Your task to perform on an android device: set the timer Image 0: 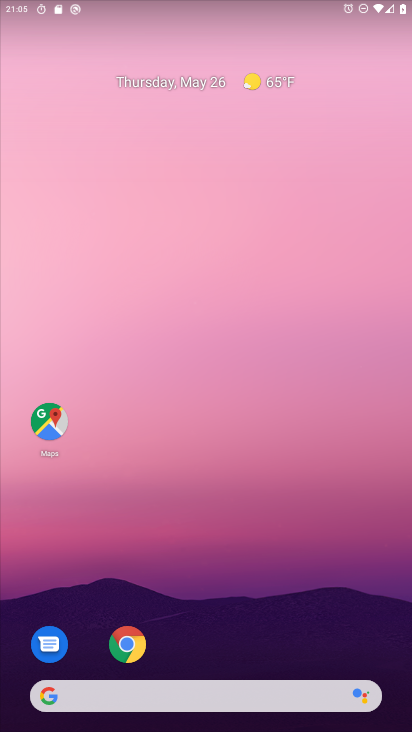
Step 0: drag from (169, 656) to (179, 15)
Your task to perform on an android device: set the timer Image 1: 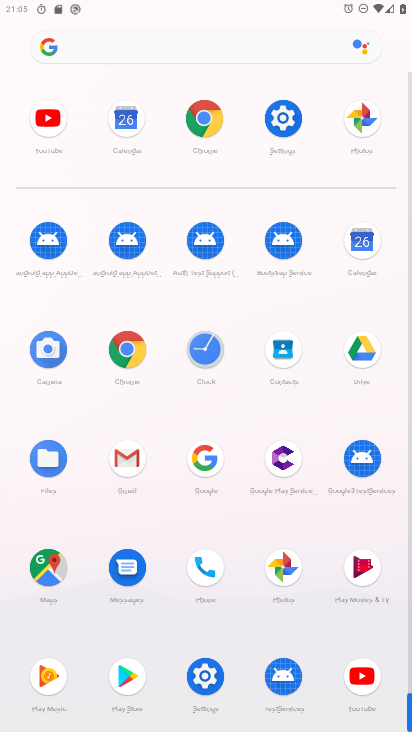
Step 1: click (210, 343)
Your task to perform on an android device: set the timer Image 2: 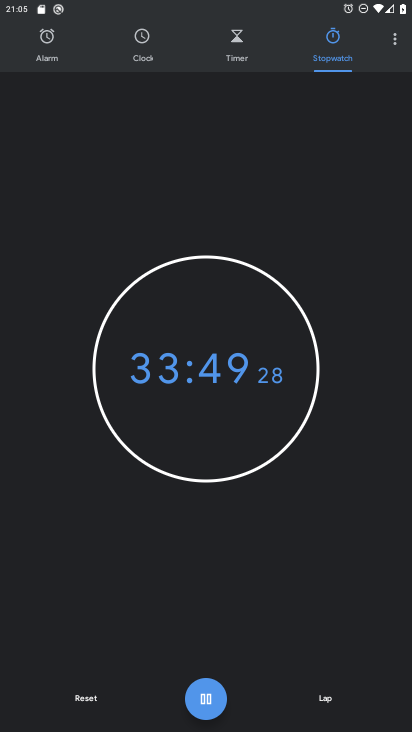
Step 2: click (221, 37)
Your task to perform on an android device: set the timer Image 3: 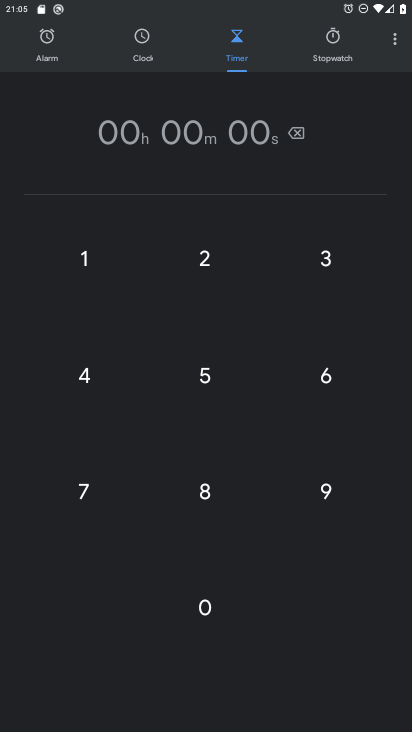
Step 3: click (220, 242)
Your task to perform on an android device: set the timer Image 4: 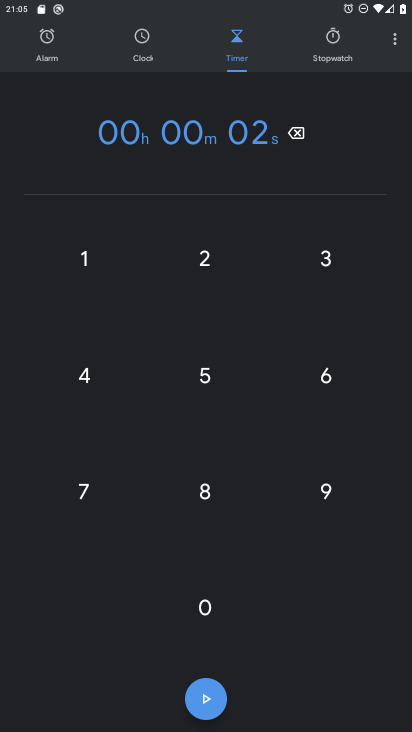
Step 4: click (201, 257)
Your task to perform on an android device: set the timer Image 5: 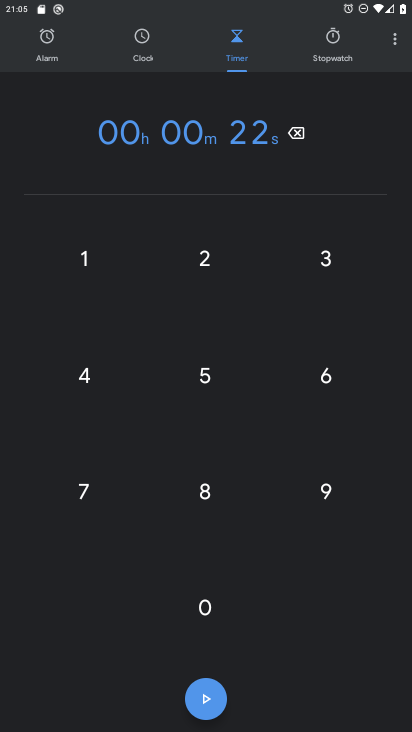
Step 5: click (190, 703)
Your task to perform on an android device: set the timer Image 6: 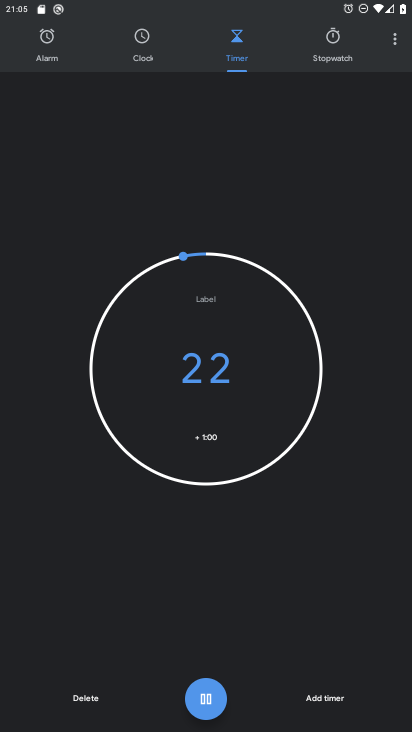
Step 6: task complete